Your task to perform on an android device: find which apps use the phone's location Image 0: 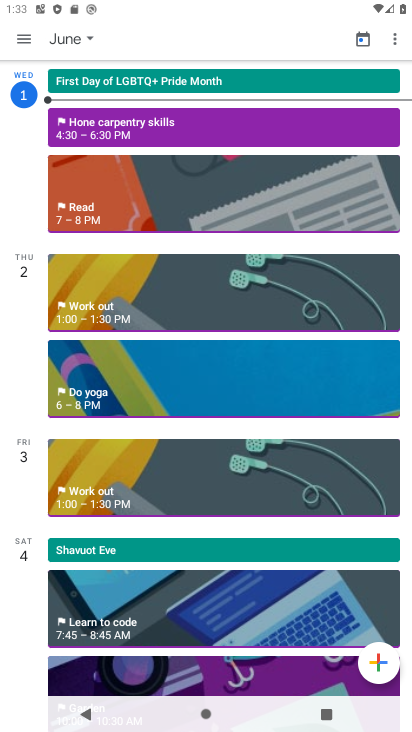
Step 0: press home button
Your task to perform on an android device: find which apps use the phone's location Image 1: 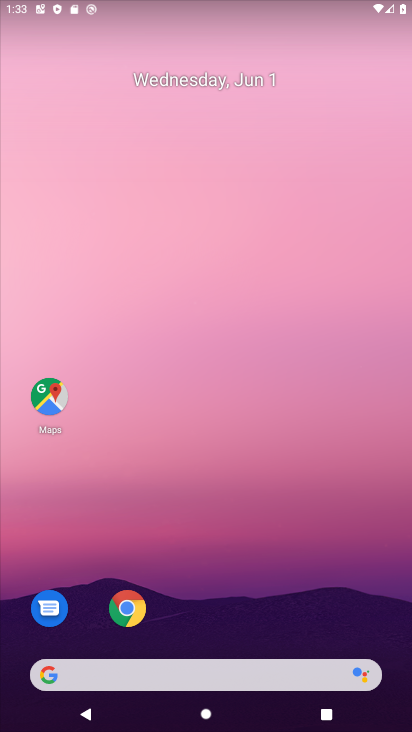
Step 1: drag from (197, 625) to (123, 1)
Your task to perform on an android device: find which apps use the phone's location Image 2: 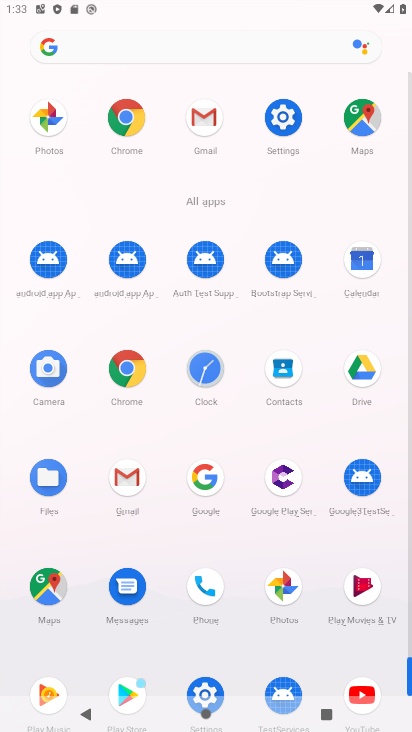
Step 2: click (280, 127)
Your task to perform on an android device: find which apps use the phone's location Image 3: 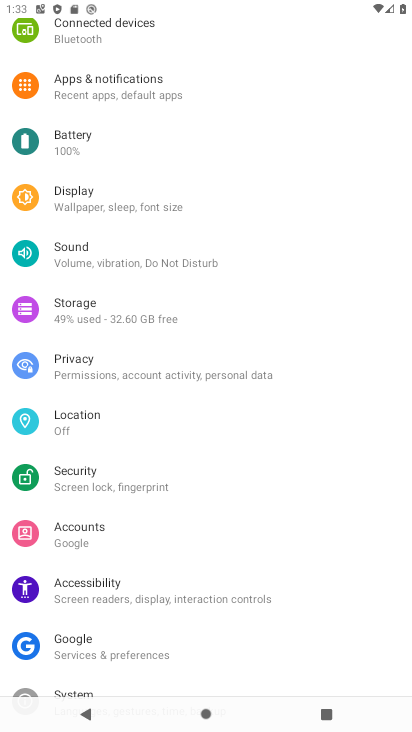
Step 3: click (93, 434)
Your task to perform on an android device: find which apps use the phone's location Image 4: 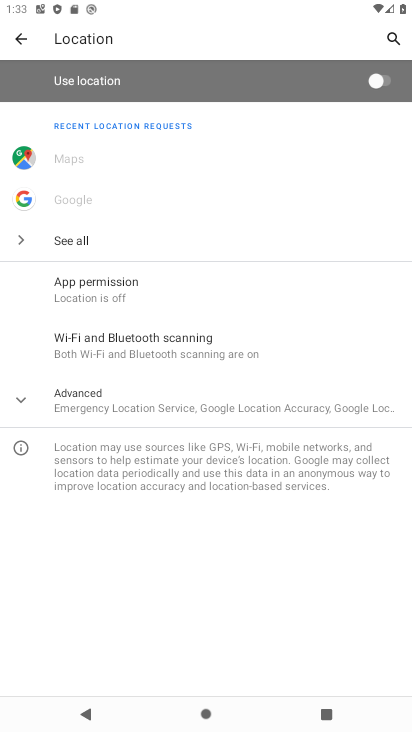
Step 4: click (74, 297)
Your task to perform on an android device: find which apps use the phone's location Image 5: 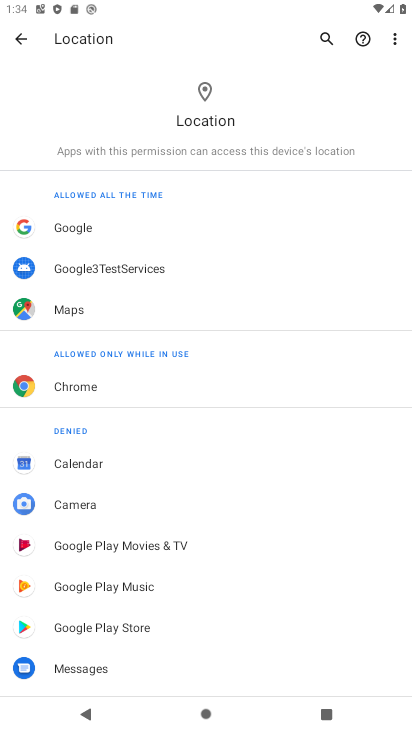
Step 5: task complete